Your task to perform on an android device: toggle sleep mode Image 0: 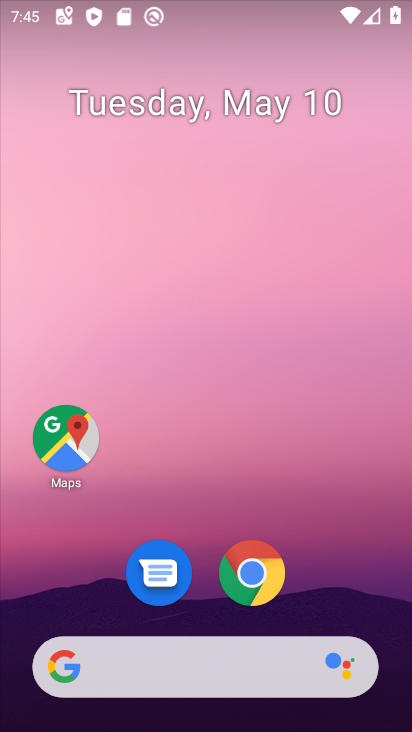
Step 0: press home button
Your task to perform on an android device: toggle sleep mode Image 1: 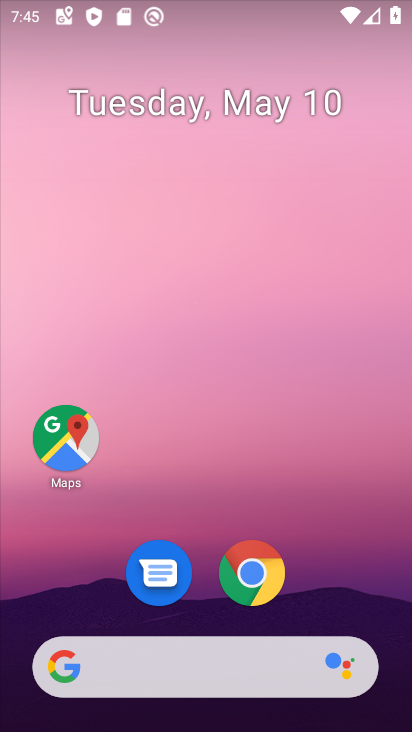
Step 1: drag from (371, 568) to (376, 188)
Your task to perform on an android device: toggle sleep mode Image 2: 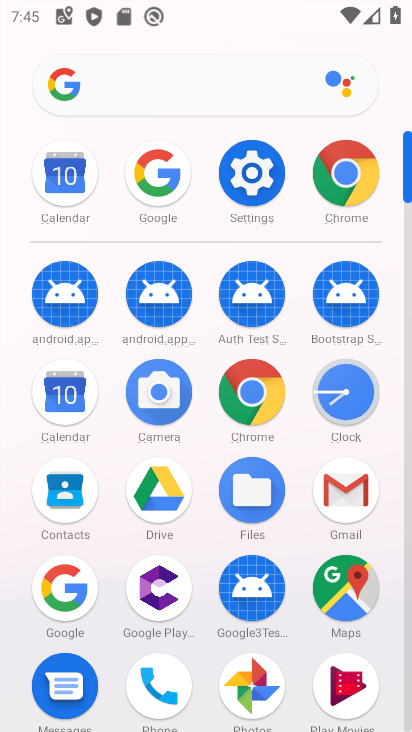
Step 2: click (244, 188)
Your task to perform on an android device: toggle sleep mode Image 3: 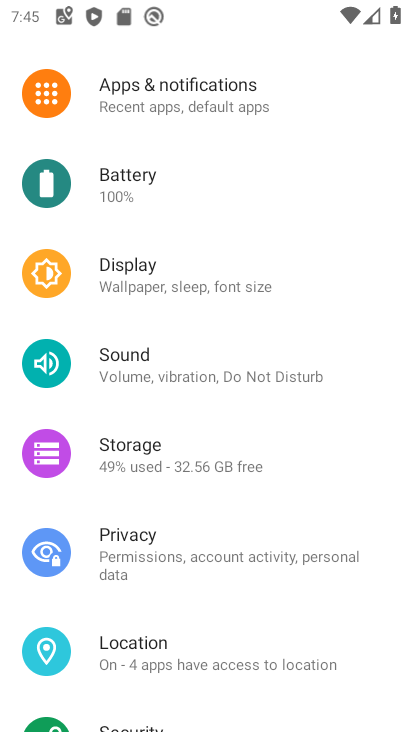
Step 3: drag from (243, 134) to (267, 502)
Your task to perform on an android device: toggle sleep mode Image 4: 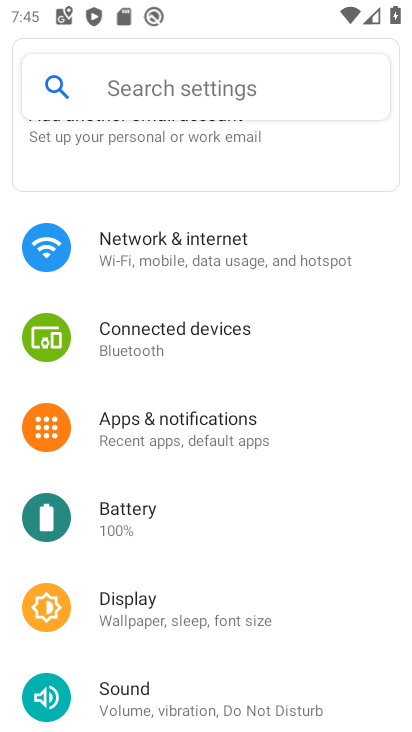
Step 4: click (213, 79)
Your task to perform on an android device: toggle sleep mode Image 5: 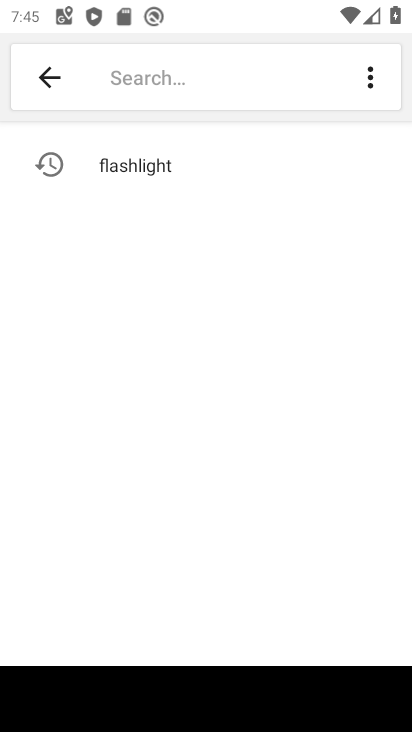
Step 5: type "sleep mode"
Your task to perform on an android device: toggle sleep mode Image 6: 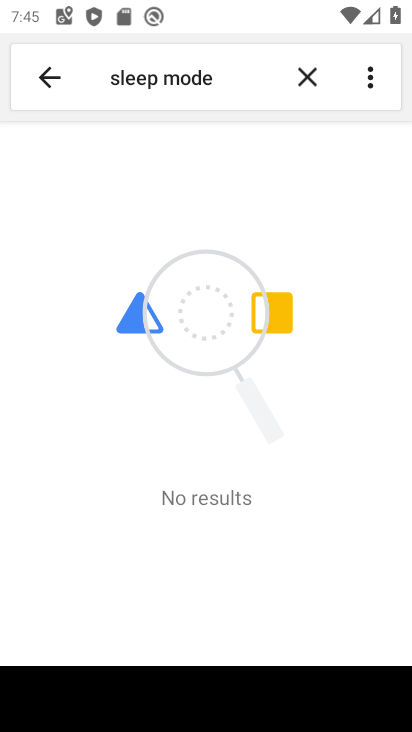
Step 6: task complete